Your task to perform on an android device: create a new album in the google photos Image 0: 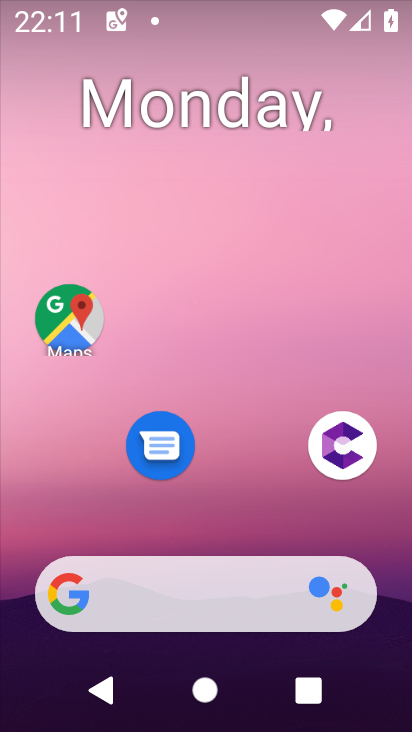
Step 0: drag from (227, 519) to (174, 9)
Your task to perform on an android device: create a new album in the google photos Image 1: 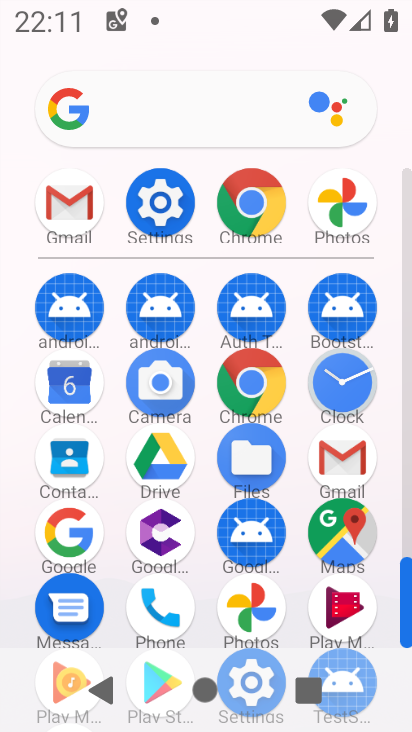
Step 1: click (341, 199)
Your task to perform on an android device: create a new album in the google photos Image 2: 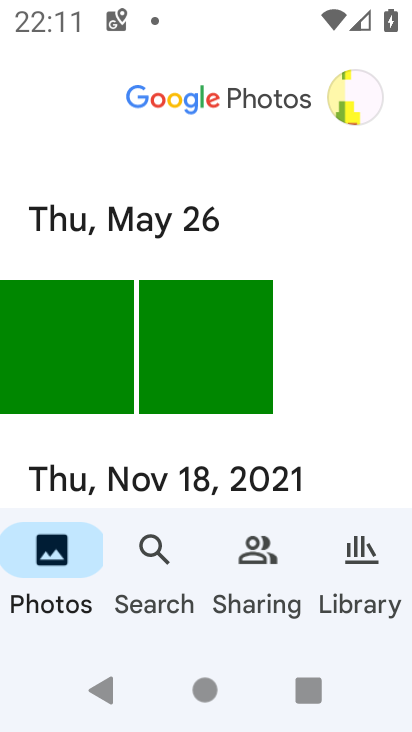
Step 2: click (38, 550)
Your task to perform on an android device: create a new album in the google photos Image 3: 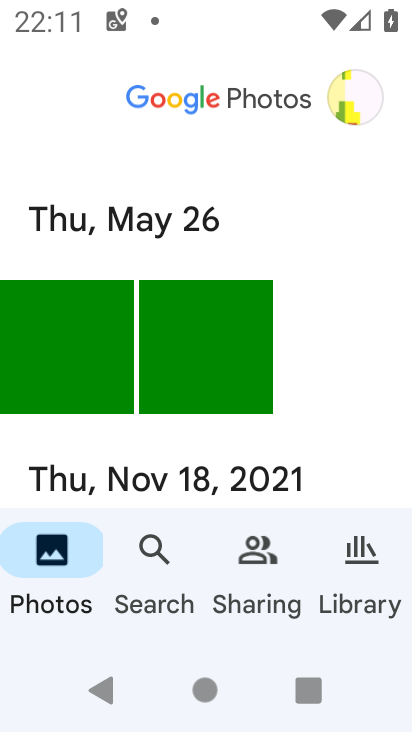
Step 3: click (41, 374)
Your task to perform on an android device: create a new album in the google photos Image 4: 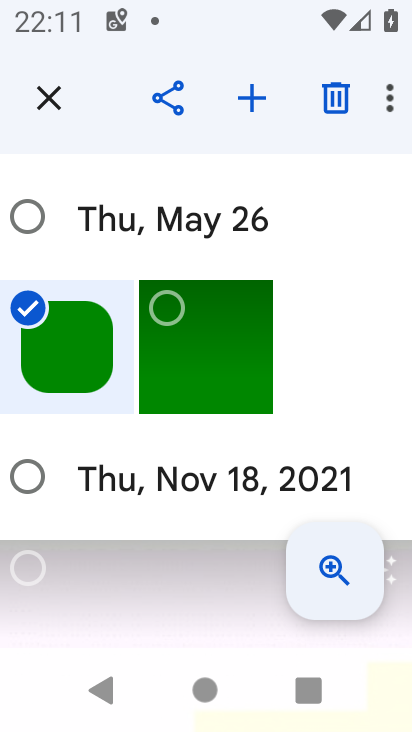
Step 4: click (247, 352)
Your task to perform on an android device: create a new album in the google photos Image 5: 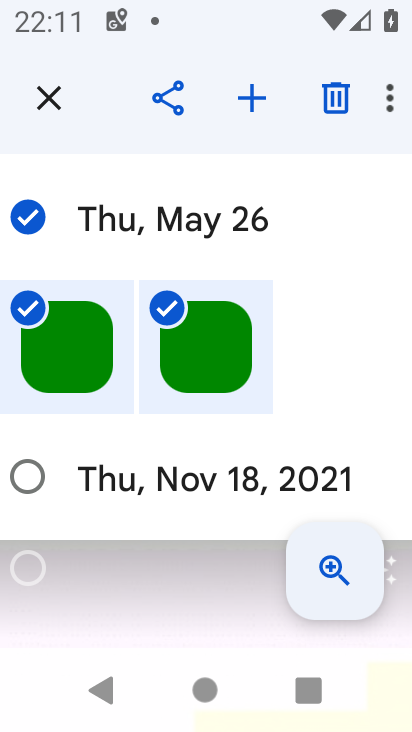
Step 5: click (248, 97)
Your task to perform on an android device: create a new album in the google photos Image 6: 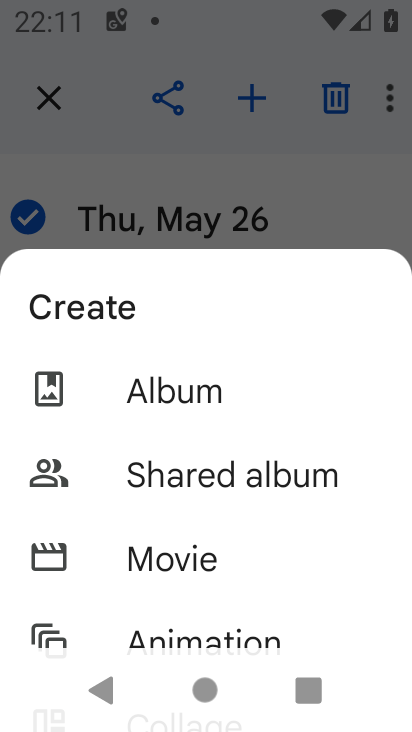
Step 6: click (191, 396)
Your task to perform on an android device: create a new album in the google photos Image 7: 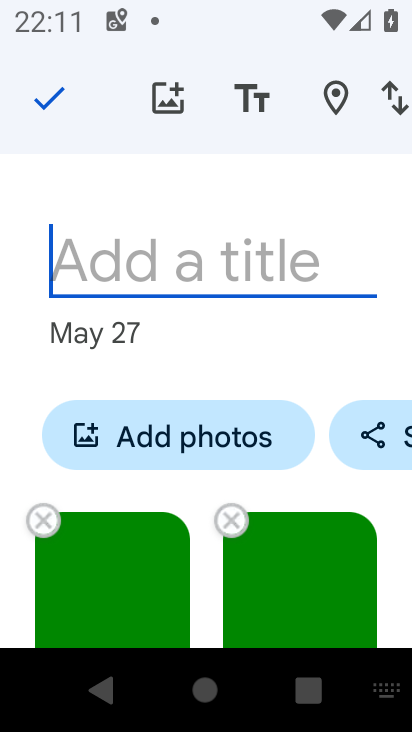
Step 7: click (346, 174)
Your task to perform on an android device: create a new album in the google photos Image 8: 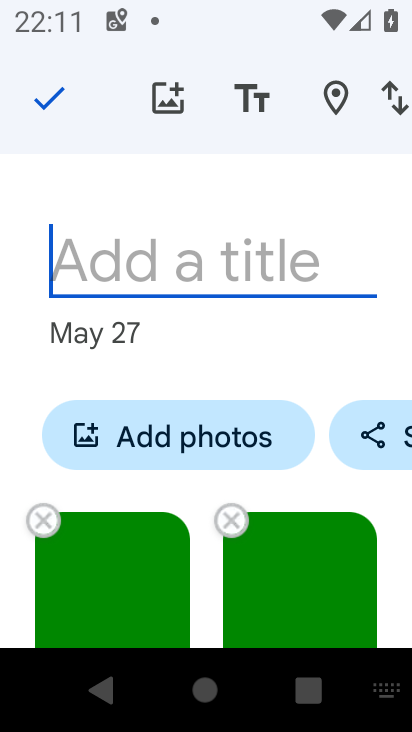
Step 8: type "ggggggg"
Your task to perform on an android device: create a new album in the google photos Image 9: 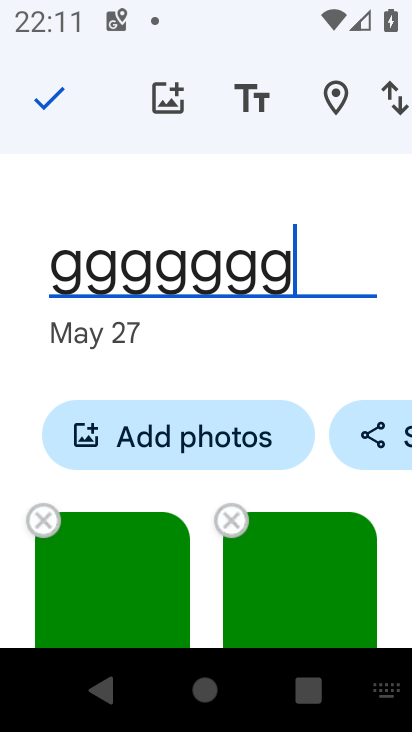
Step 9: click (46, 103)
Your task to perform on an android device: create a new album in the google photos Image 10: 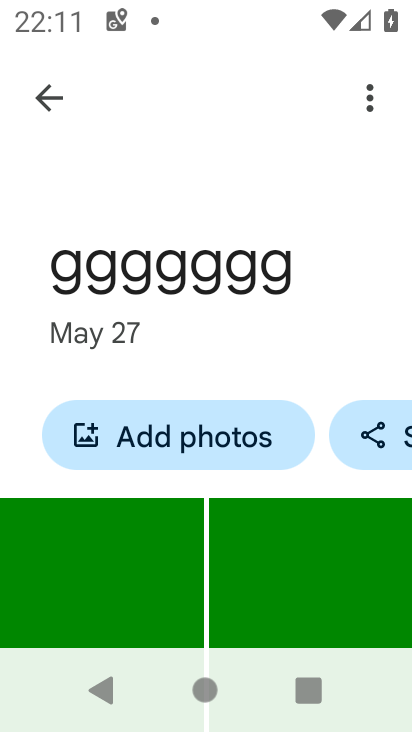
Step 10: task complete